Your task to perform on an android device: What's the weather? Image 0: 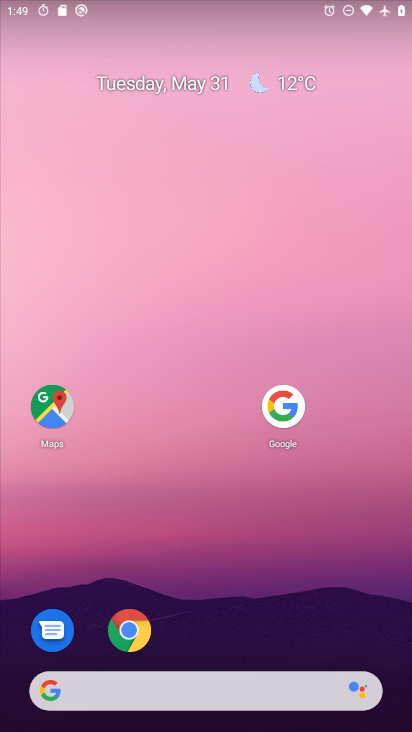
Step 0: click (290, 84)
Your task to perform on an android device: What's the weather? Image 1: 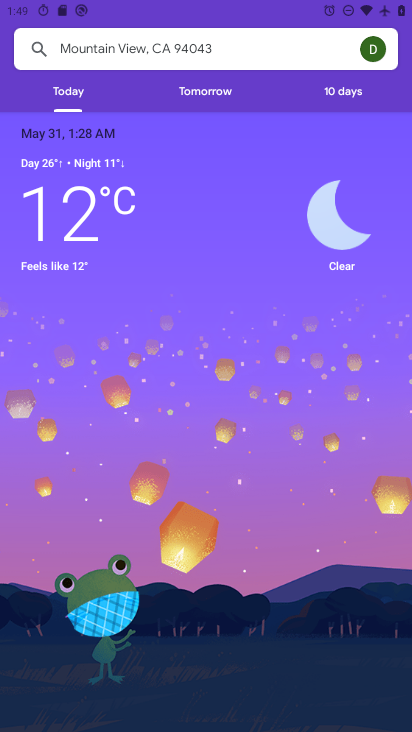
Step 1: task complete